Your task to perform on an android device: Open my contact list Image 0: 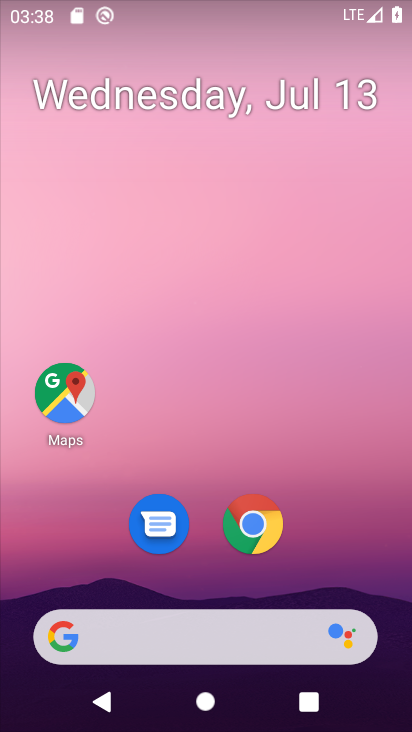
Step 0: drag from (355, 530) to (324, 89)
Your task to perform on an android device: Open my contact list Image 1: 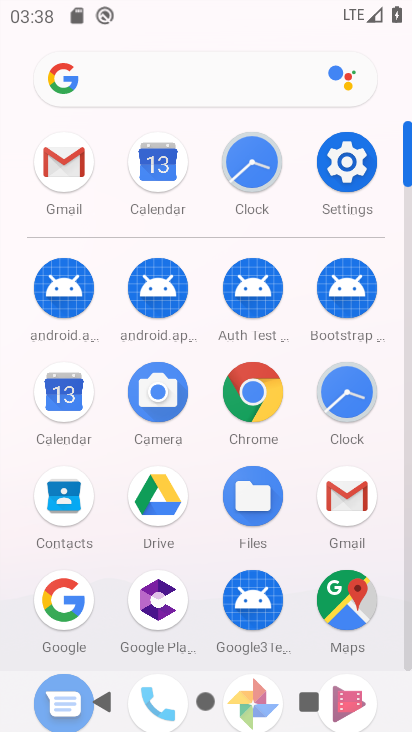
Step 1: click (60, 489)
Your task to perform on an android device: Open my contact list Image 2: 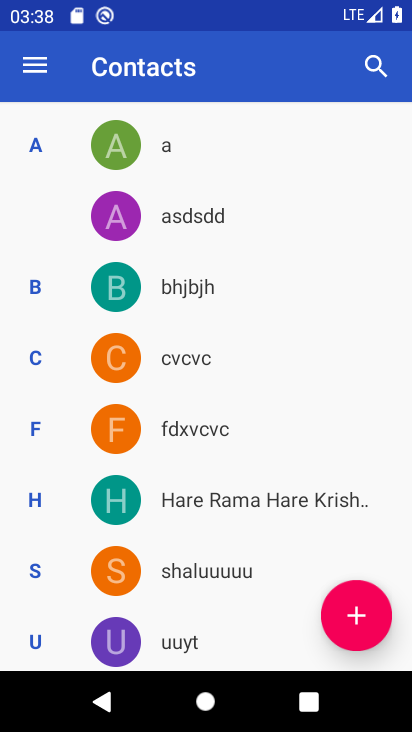
Step 2: task complete